Your task to perform on an android device: Open the Play Movies app and select the watchlist tab. Image 0: 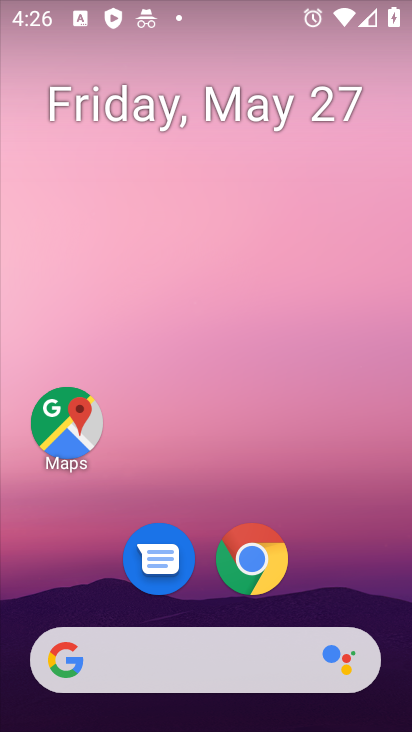
Step 0: drag from (297, 690) to (289, 13)
Your task to perform on an android device: Open the Play Movies app and select the watchlist tab. Image 1: 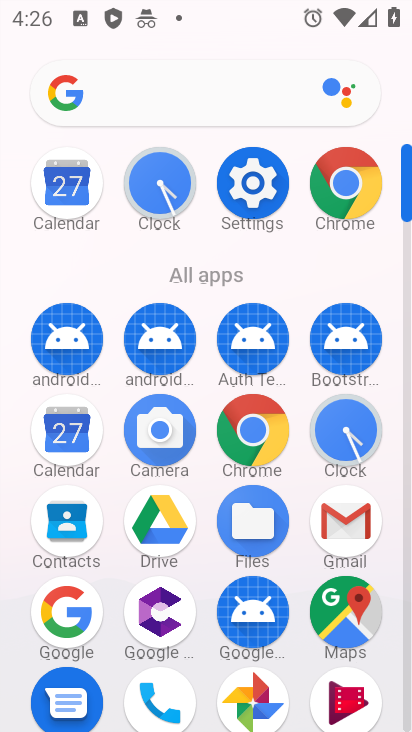
Step 1: drag from (306, 658) to (320, 172)
Your task to perform on an android device: Open the Play Movies app and select the watchlist tab. Image 2: 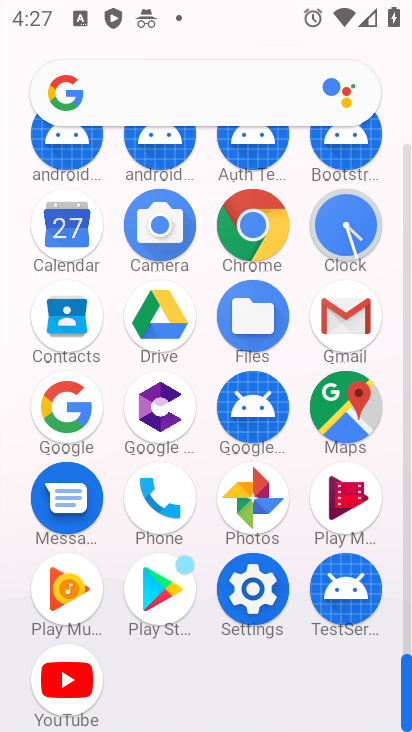
Step 2: click (339, 484)
Your task to perform on an android device: Open the Play Movies app and select the watchlist tab. Image 3: 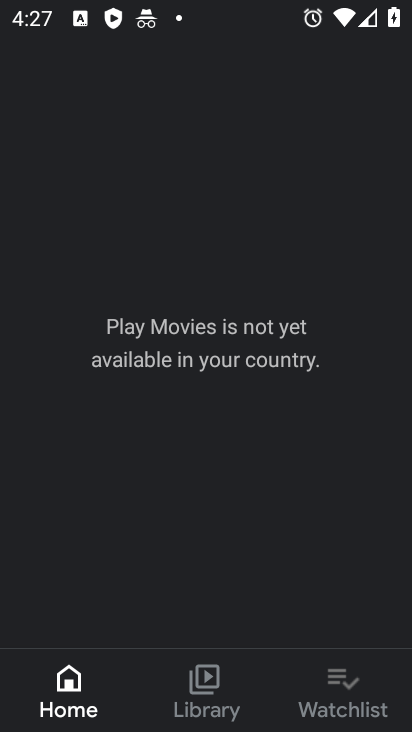
Step 3: click (349, 693)
Your task to perform on an android device: Open the Play Movies app and select the watchlist tab. Image 4: 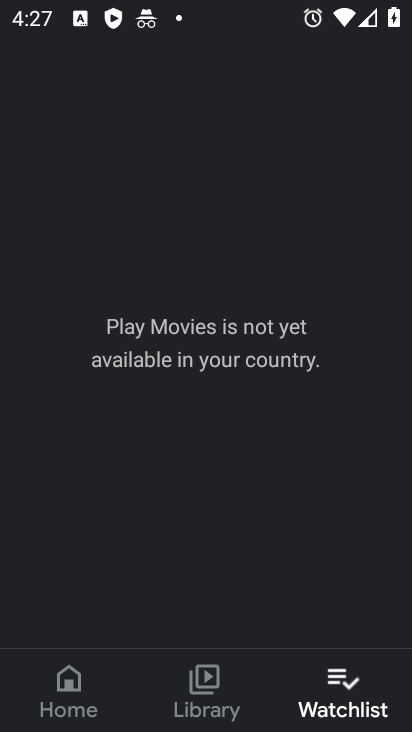
Step 4: task complete